Your task to perform on an android device: Go to Yahoo.com Image 0: 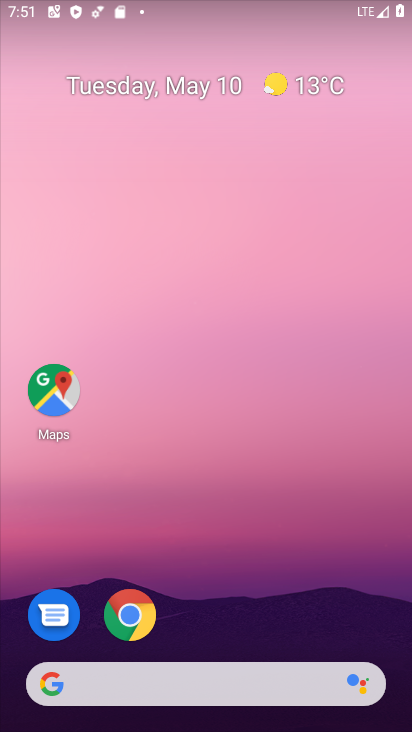
Step 0: drag from (335, 515) to (410, 73)
Your task to perform on an android device: Go to Yahoo.com Image 1: 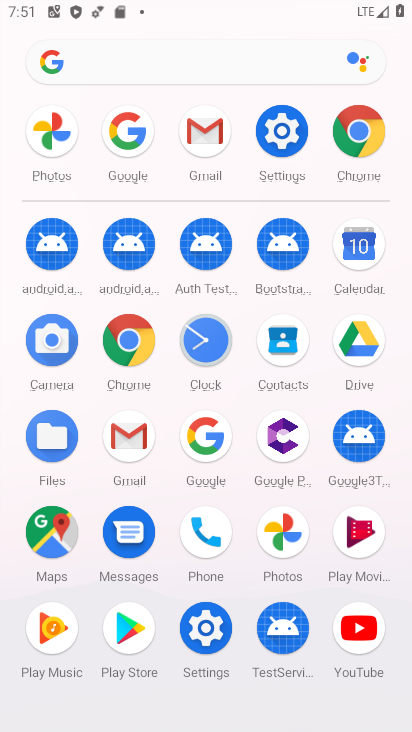
Step 1: click (356, 122)
Your task to perform on an android device: Go to Yahoo.com Image 2: 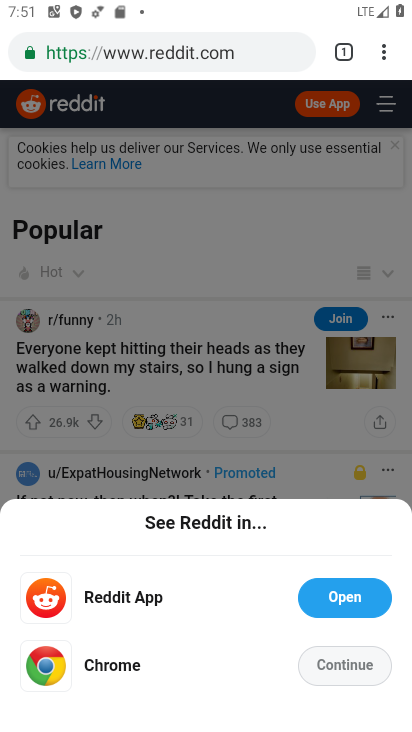
Step 2: click (246, 66)
Your task to perform on an android device: Go to Yahoo.com Image 3: 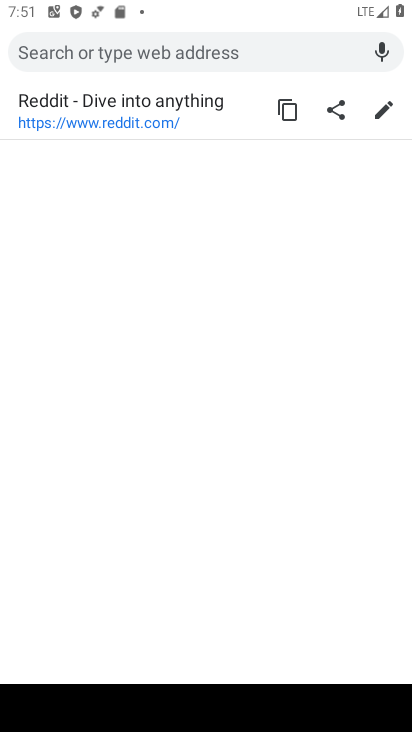
Step 3: type "yahoo.com"
Your task to perform on an android device: Go to Yahoo.com Image 4: 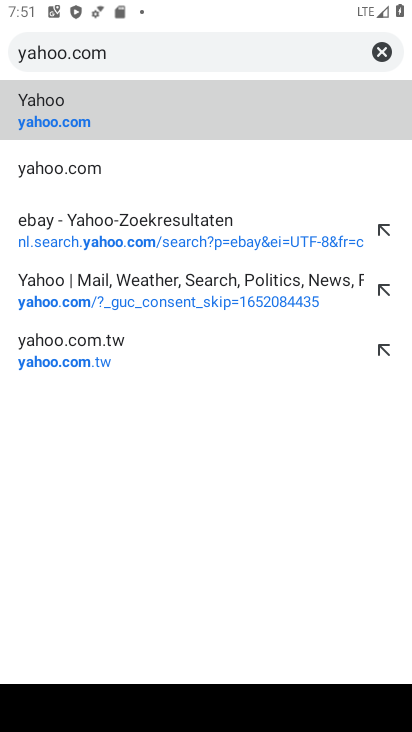
Step 4: click (40, 120)
Your task to perform on an android device: Go to Yahoo.com Image 5: 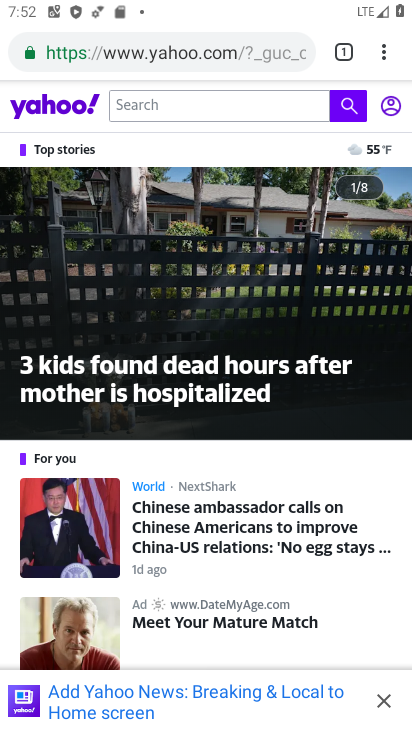
Step 5: task complete